Your task to perform on an android device: Go to calendar. Show me events next week Image 0: 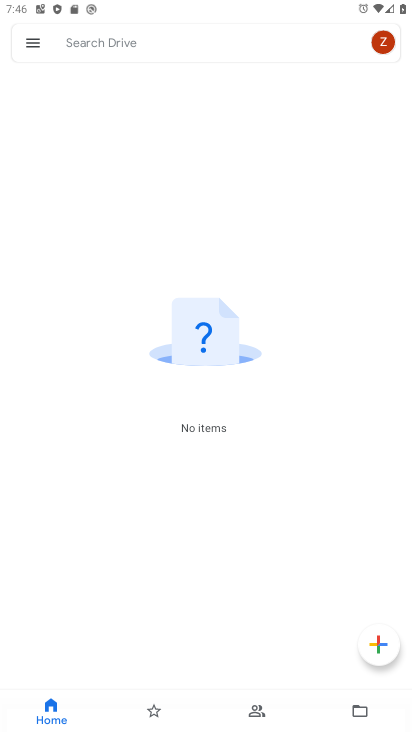
Step 0: press home button
Your task to perform on an android device: Go to calendar. Show me events next week Image 1: 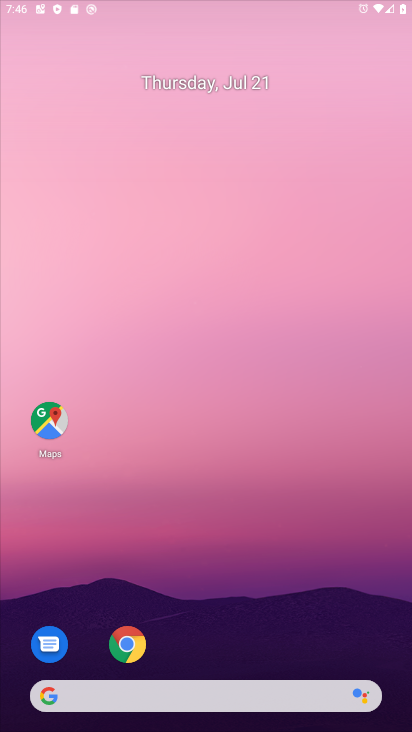
Step 1: drag from (244, 644) to (243, 250)
Your task to perform on an android device: Go to calendar. Show me events next week Image 2: 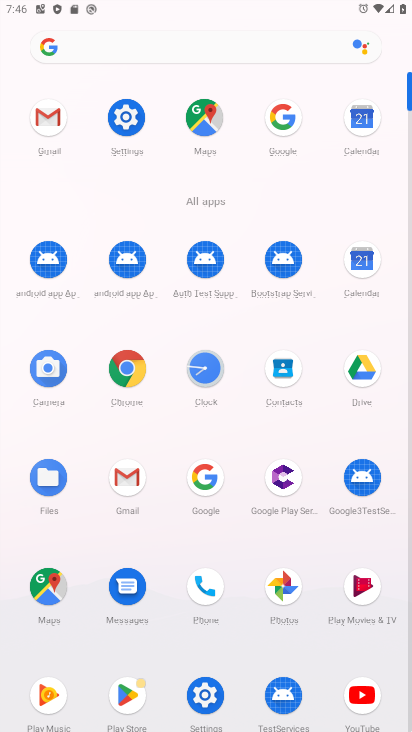
Step 2: click (375, 257)
Your task to perform on an android device: Go to calendar. Show me events next week Image 3: 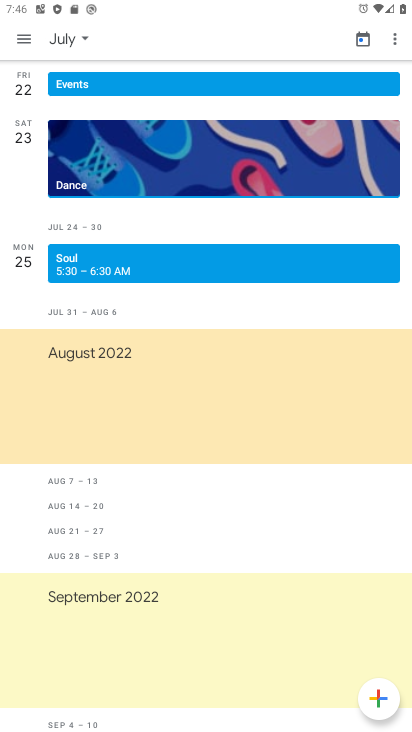
Step 3: task complete